Your task to perform on an android device: turn off data saver in the chrome app Image 0: 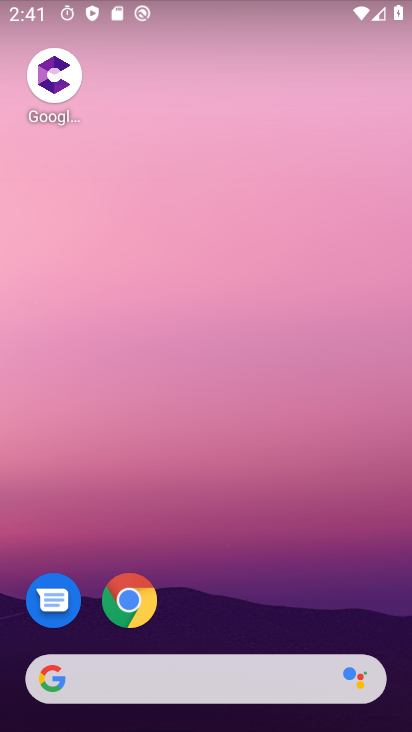
Step 0: drag from (322, 583) to (274, 20)
Your task to perform on an android device: turn off data saver in the chrome app Image 1: 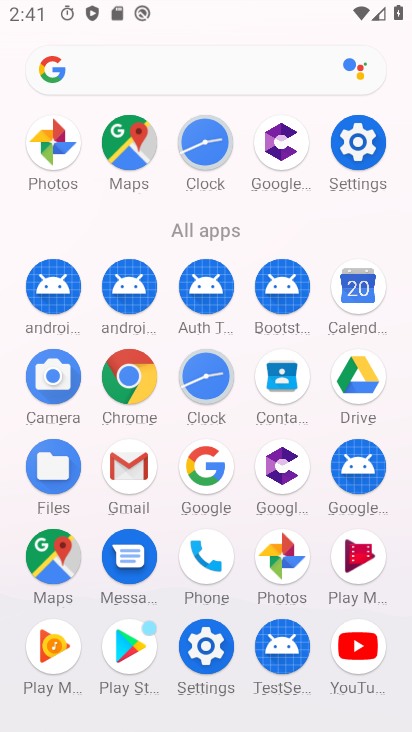
Step 1: drag from (10, 536) to (20, 197)
Your task to perform on an android device: turn off data saver in the chrome app Image 2: 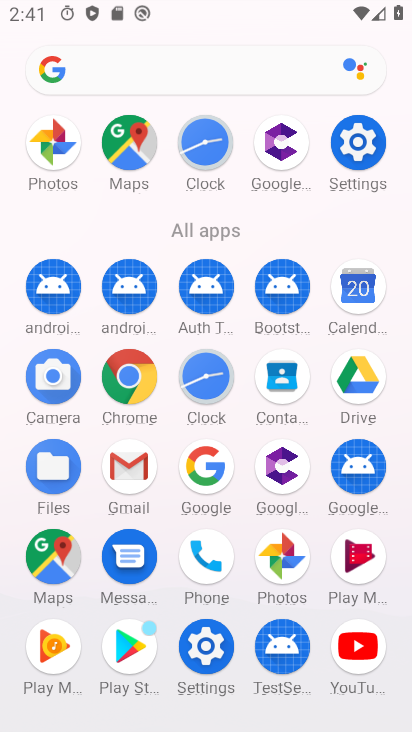
Step 2: drag from (13, 605) to (28, 278)
Your task to perform on an android device: turn off data saver in the chrome app Image 3: 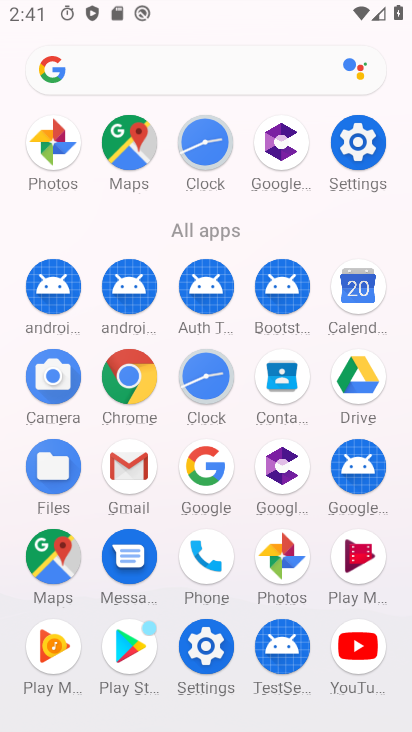
Step 3: click (124, 371)
Your task to perform on an android device: turn off data saver in the chrome app Image 4: 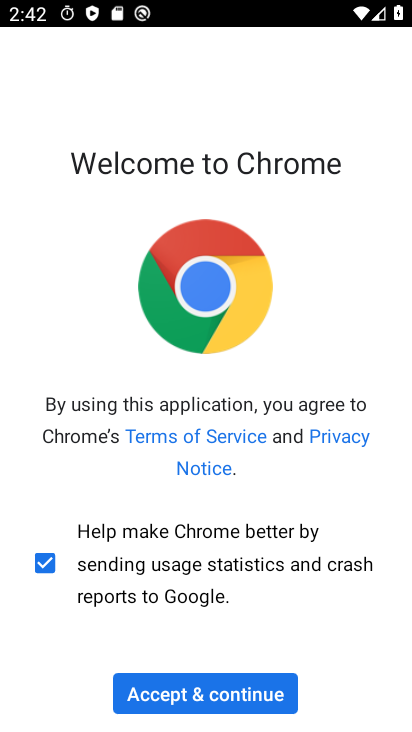
Step 4: click (212, 676)
Your task to perform on an android device: turn off data saver in the chrome app Image 5: 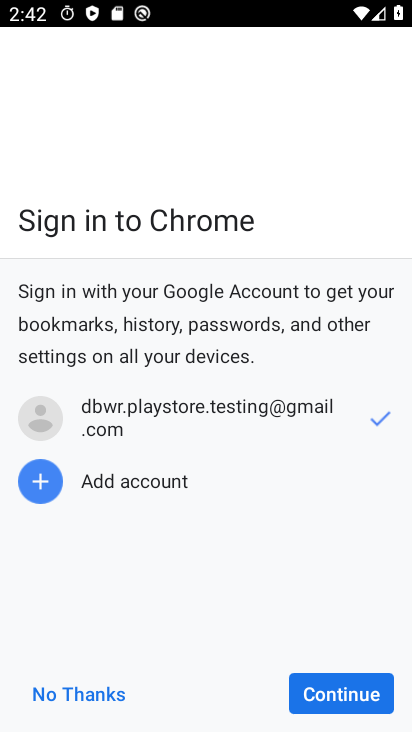
Step 5: click (333, 689)
Your task to perform on an android device: turn off data saver in the chrome app Image 6: 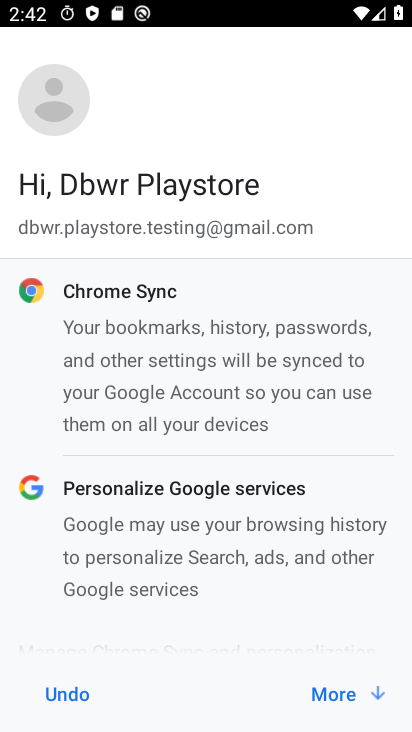
Step 6: click (333, 689)
Your task to perform on an android device: turn off data saver in the chrome app Image 7: 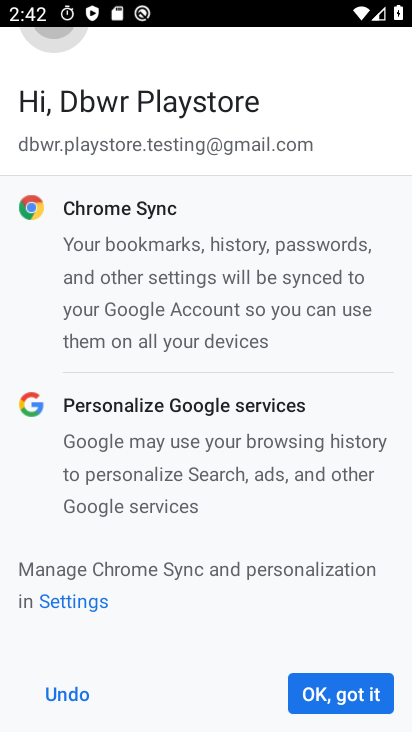
Step 7: click (333, 689)
Your task to perform on an android device: turn off data saver in the chrome app Image 8: 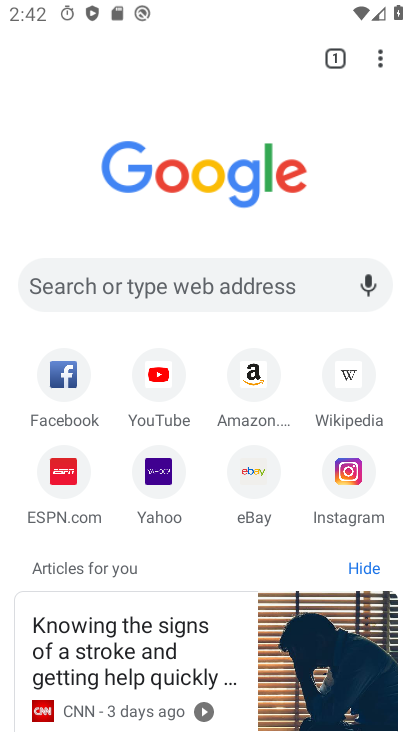
Step 8: drag from (378, 54) to (189, 492)
Your task to perform on an android device: turn off data saver in the chrome app Image 9: 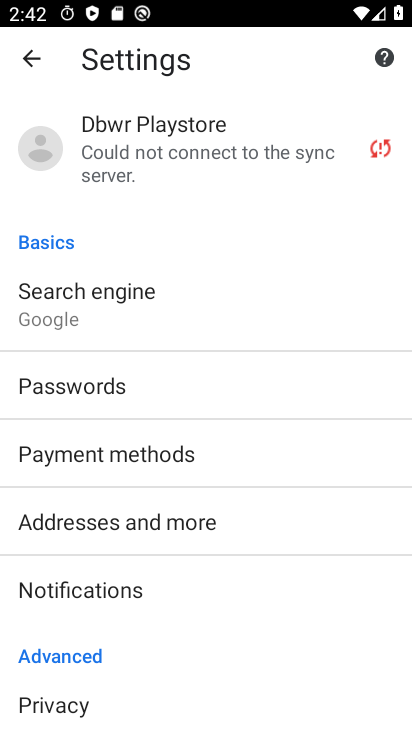
Step 9: drag from (246, 531) to (291, 180)
Your task to perform on an android device: turn off data saver in the chrome app Image 10: 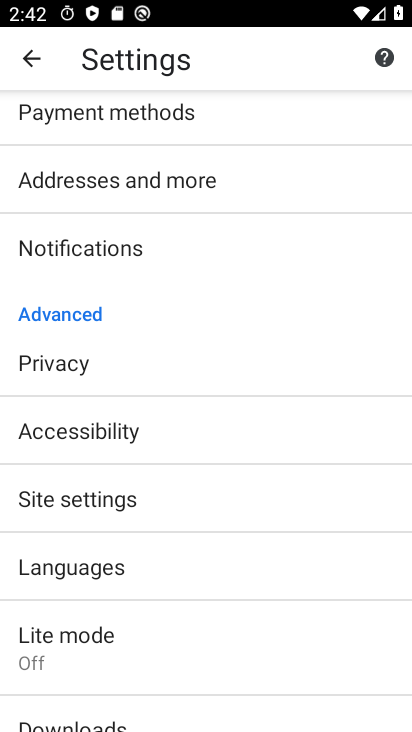
Step 10: drag from (209, 634) to (219, 393)
Your task to perform on an android device: turn off data saver in the chrome app Image 11: 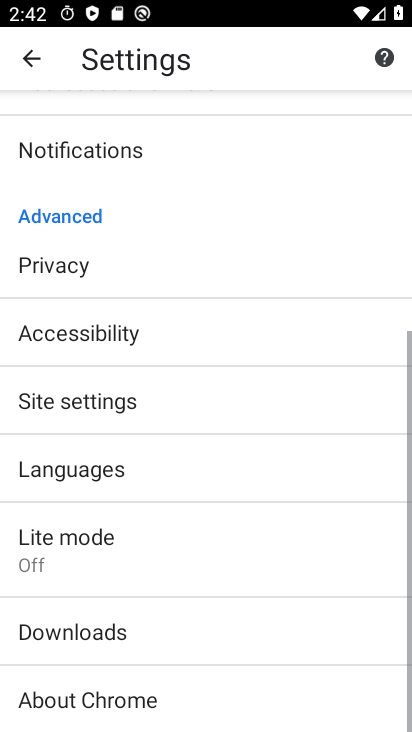
Step 11: click (114, 527)
Your task to perform on an android device: turn off data saver in the chrome app Image 12: 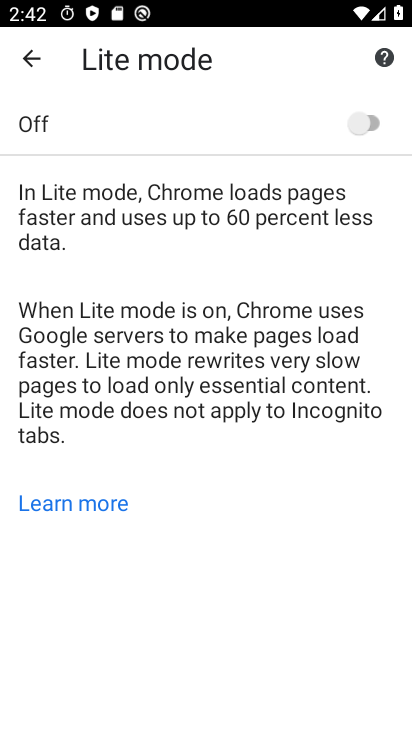
Step 12: task complete